Your task to perform on an android device: toggle airplane mode Image 0: 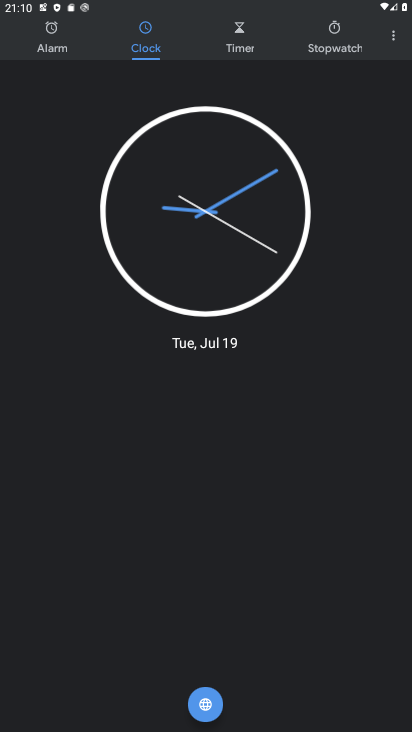
Step 0: drag from (166, 5) to (118, 379)
Your task to perform on an android device: toggle airplane mode Image 1: 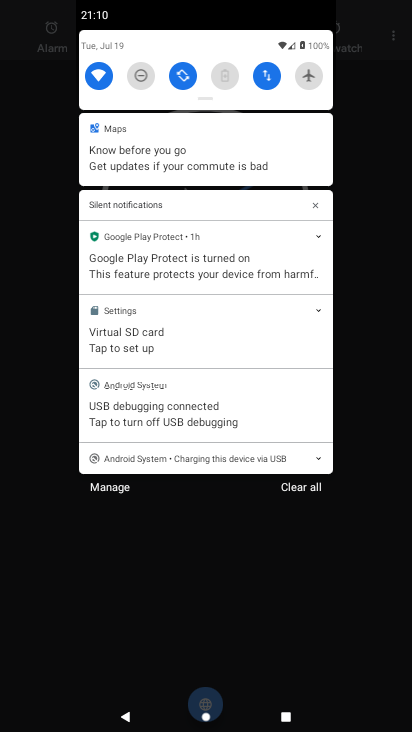
Step 1: click (314, 75)
Your task to perform on an android device: toggle airplane mode Image 2: 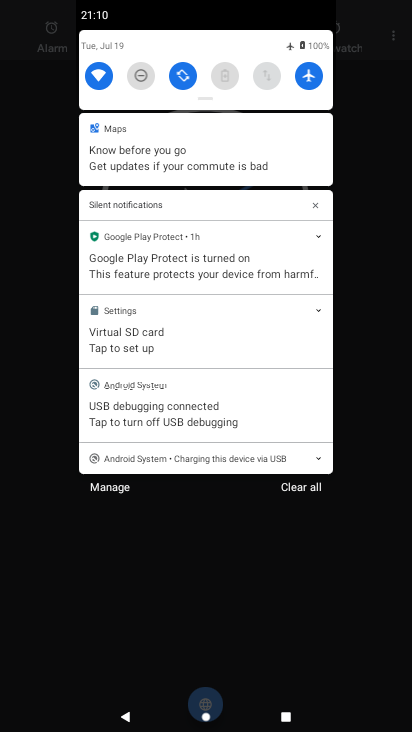
Step 2: click (314, 75)
Your task to perform on an android device: toggle airplane mode Image 3: 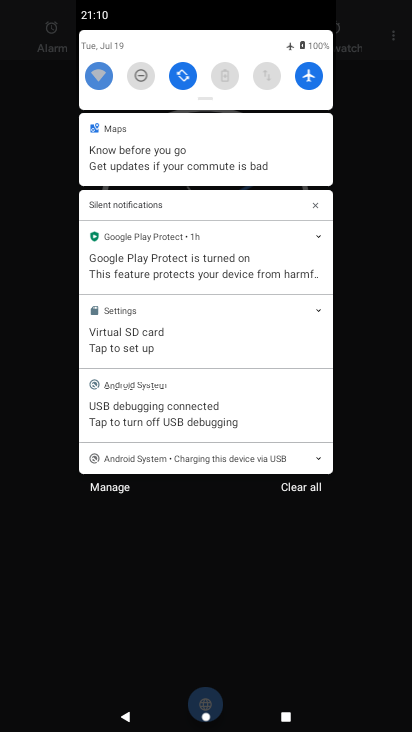
Step 3: click (314, 75)
Your task to perform on an android device: toggle airplane mode Image 4: 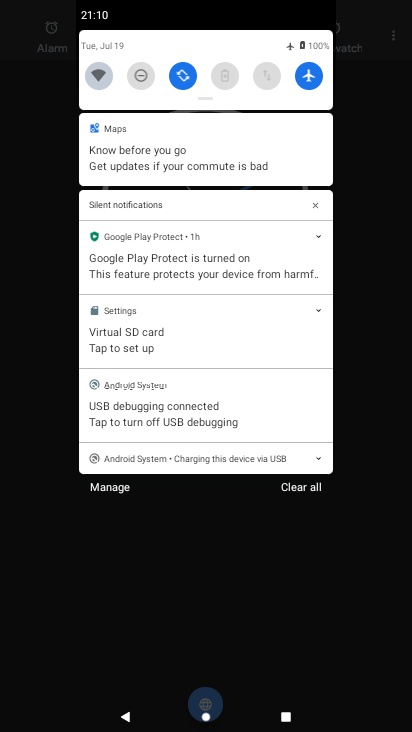
Step 4: click (314, 75)
Your task to perform on an android device: toggle airplane mode Image 5: 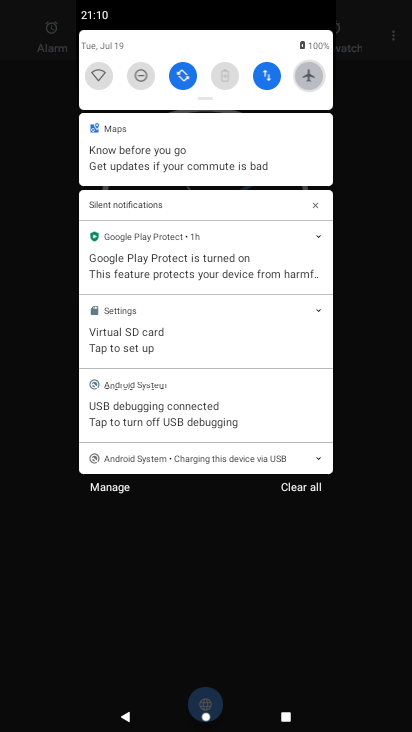
Step 5: click (314, 75)
Your task to perform on an android device: toggle airplane mode Image 6: 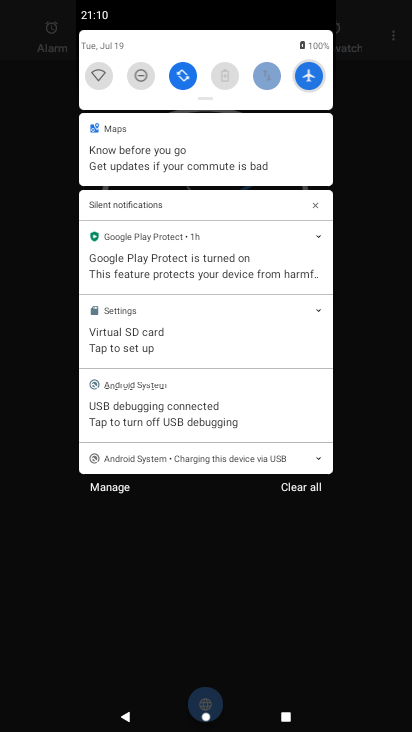
Step 6: click (314, 75)
Your task to perform on an android device: toggle airplane mode Image 7: 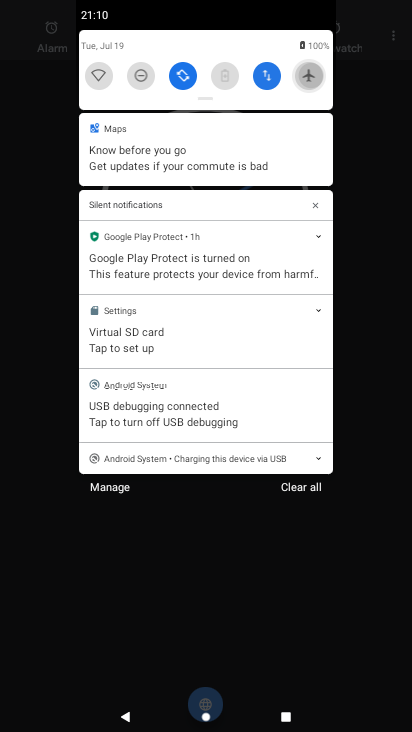
Step 7: click (314, 75)
Your task to perform on an android device: toggle airplane mode Image 8: 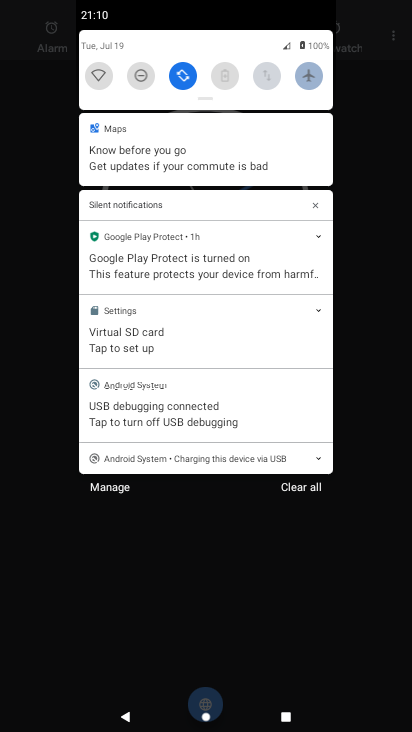
Step 8: click (314, 75)
Your task to perform on an android device: toggle airplane mode Image 9: 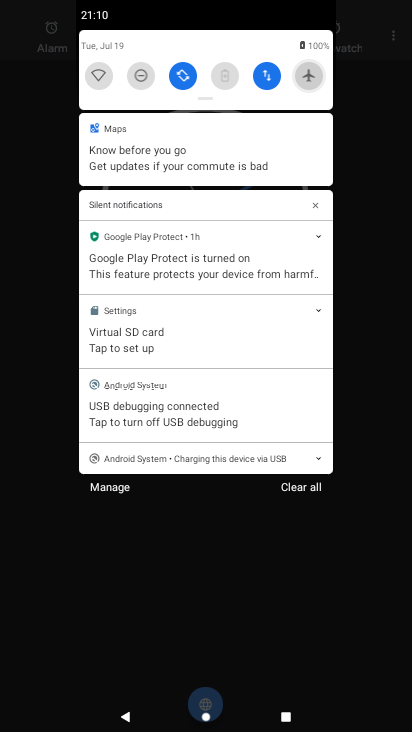
Step 9: click (314, 75)
Your task to perform on an android device: toggle airplane mode Image 10: 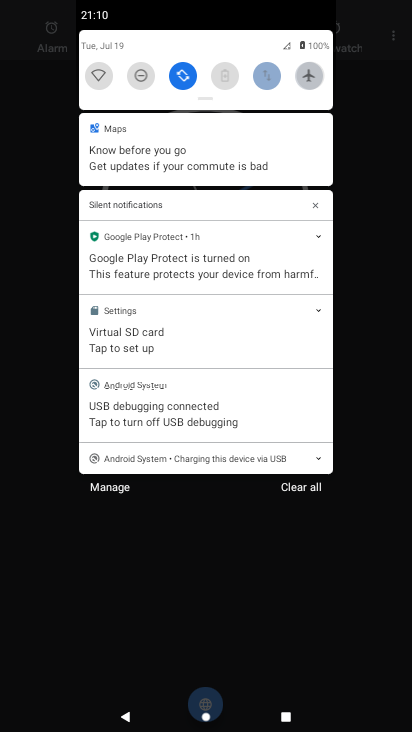
Step 10: click (314, 75)
Your task to perform on an android device: toggle airplane mode Image 11: 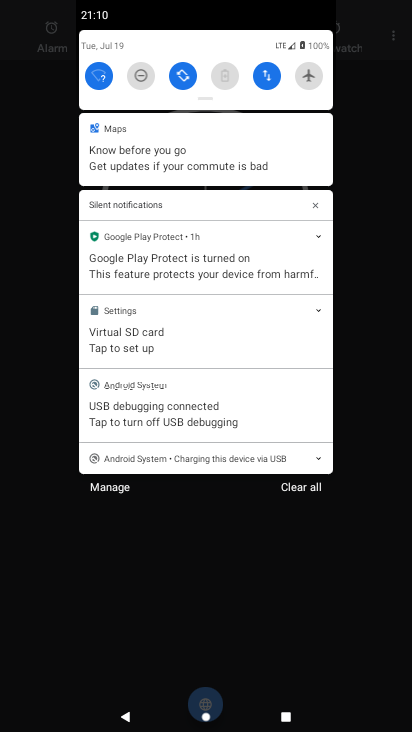
Step 11: task complete